Your task to perform on an android device: turn off improve location accuracy Image 0: 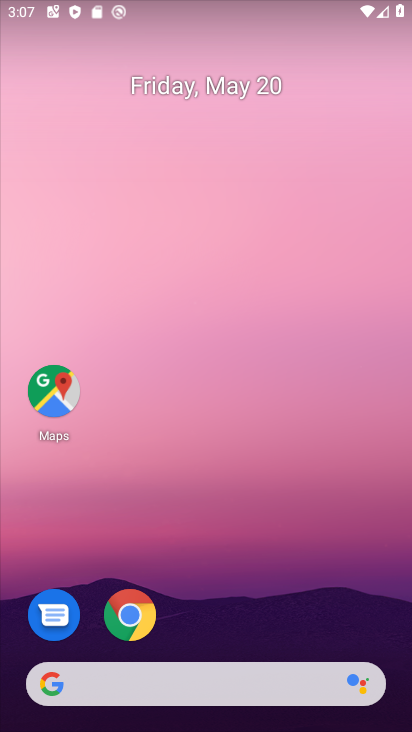
Step 0: drag from (226, 594) to (172, 148)
Your task to perform on an android device: turn off improve location accuracy Image 1: 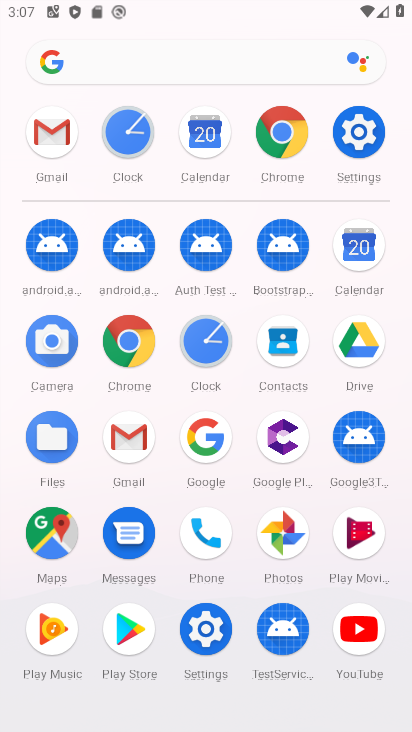
Step 1: click (330, 125)
Your task to perform on an android device: turn off improve location accuracy Image 2: 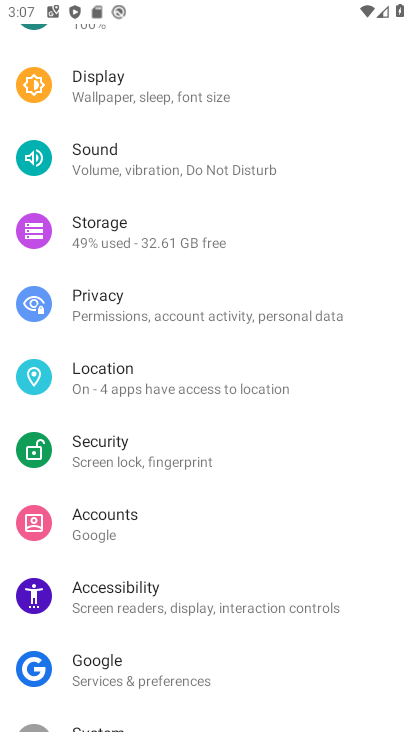
Step 2: click (164, 346)
Your task to perform on an android device: turn off improve location accuracy Image 3: 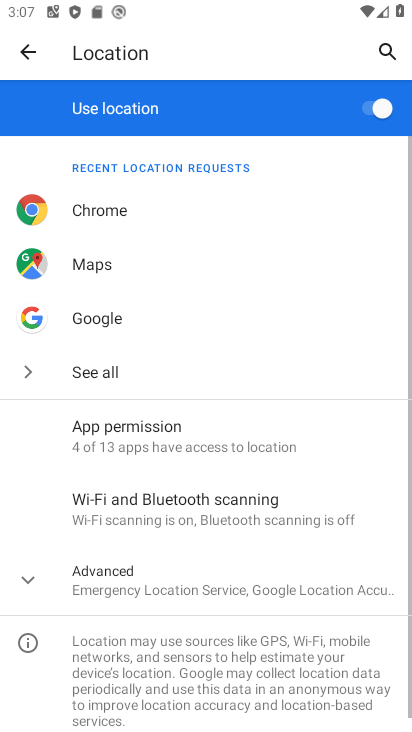
Step 3: click (186, 581)
Your task to perform on an android device: turn off improve location accuracy Image 4: 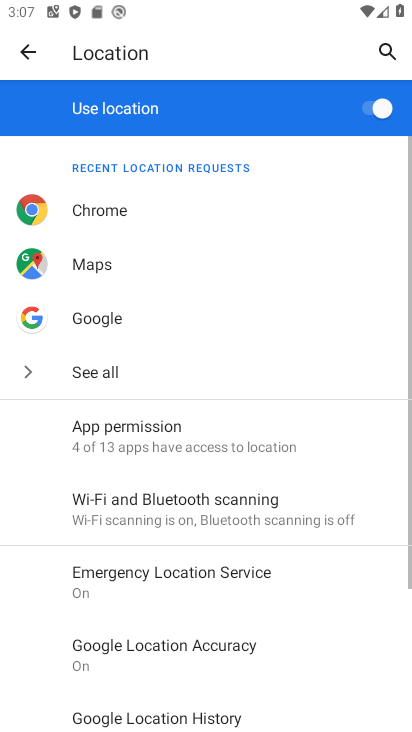
Step 4: drag from (190, 645) to (211, 484)
Your task to perform on an android device: turn off improve location accuracy Image 5: 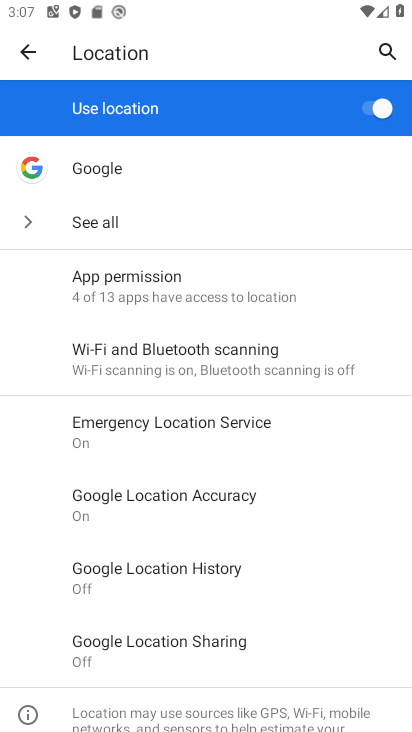
Step 5: click (222, 510)
Your task to perform on an android device: turn off improve location accuracy Image 6: 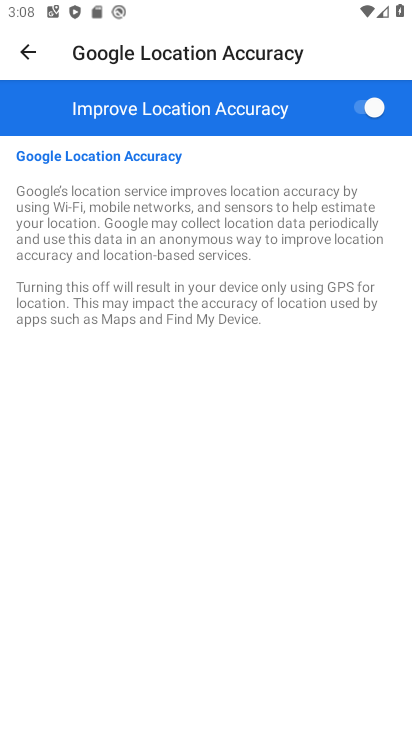
Step 6: click (356, 106)
Your task to perform on an android device: turn off improve location accuracy Image 7: 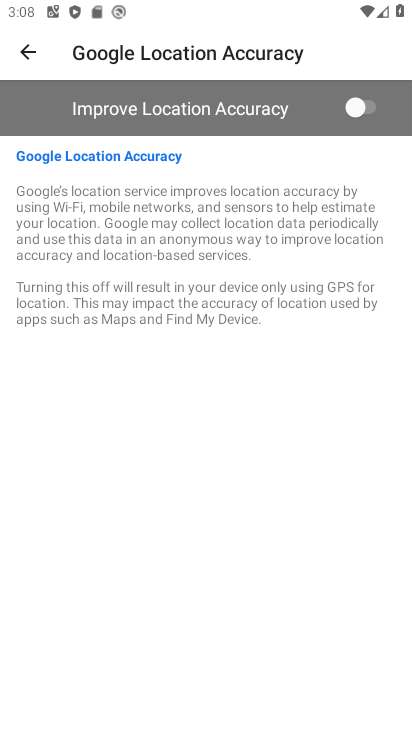
Step 7: task complete